Your task to perform on an android device: open app "Cash App" (install if not already installed) Image 0: 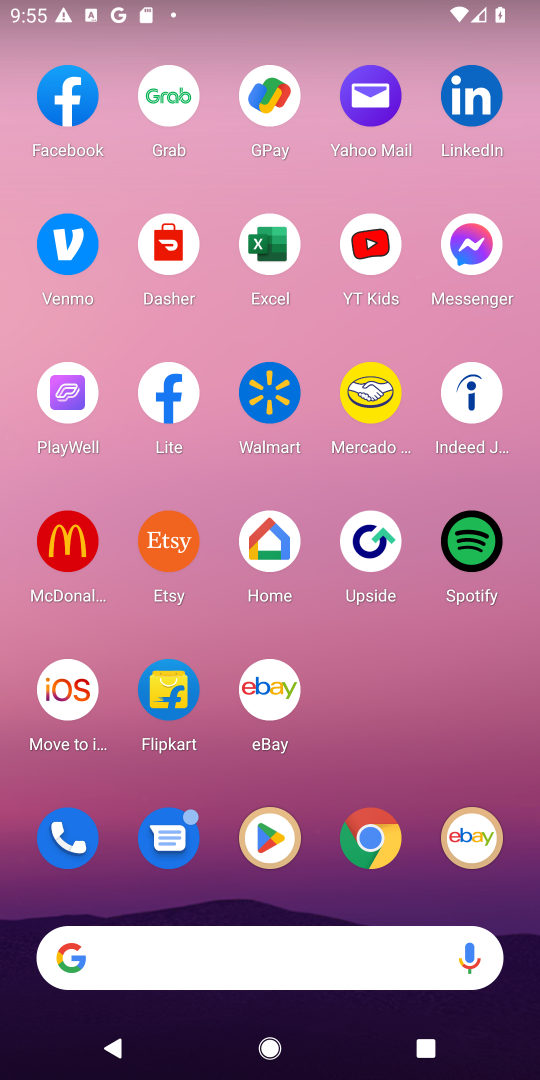
Step 0: press back button
Your task to perform on an android device: open app "Cash App" (install if not already installed) Image 1: 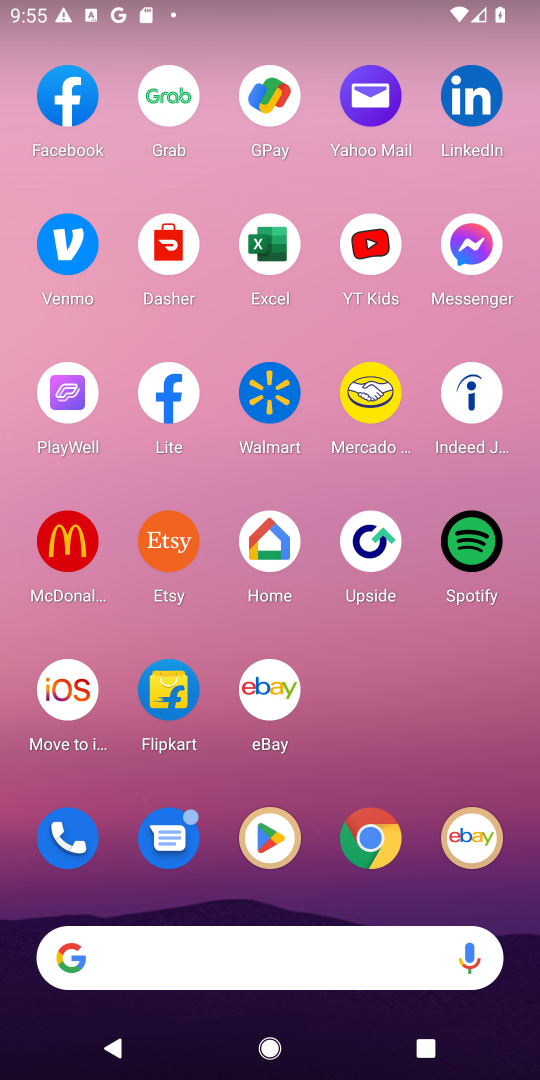
Step 1: click (266, 811)
Your task to perform on an android device: open app "Cash App" (install if not already installed) Image 2: 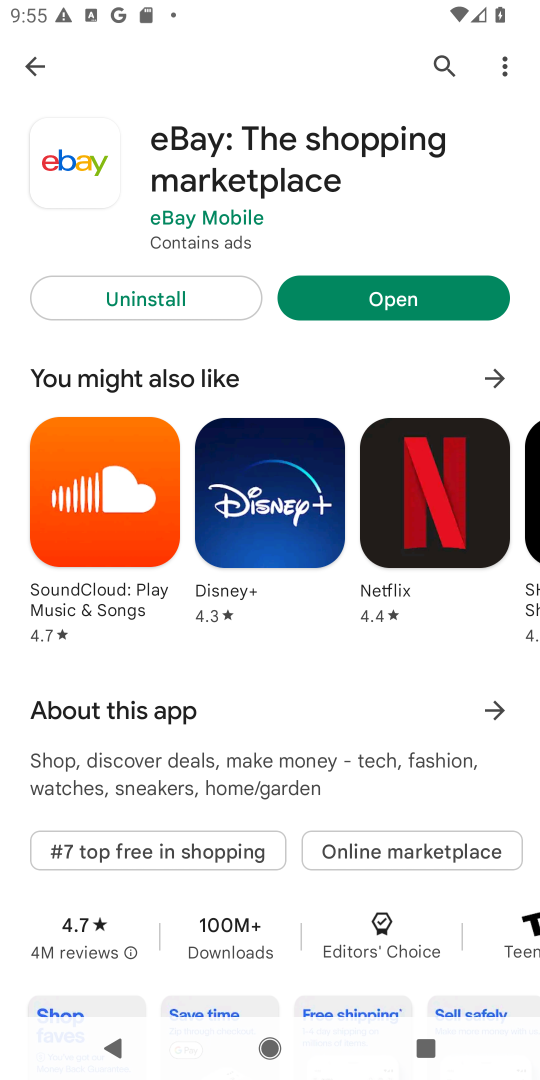
Step 2: click (447, 61)
Your task to perform on an android device: open app "Cash App" (install if not already installed) Image 3: 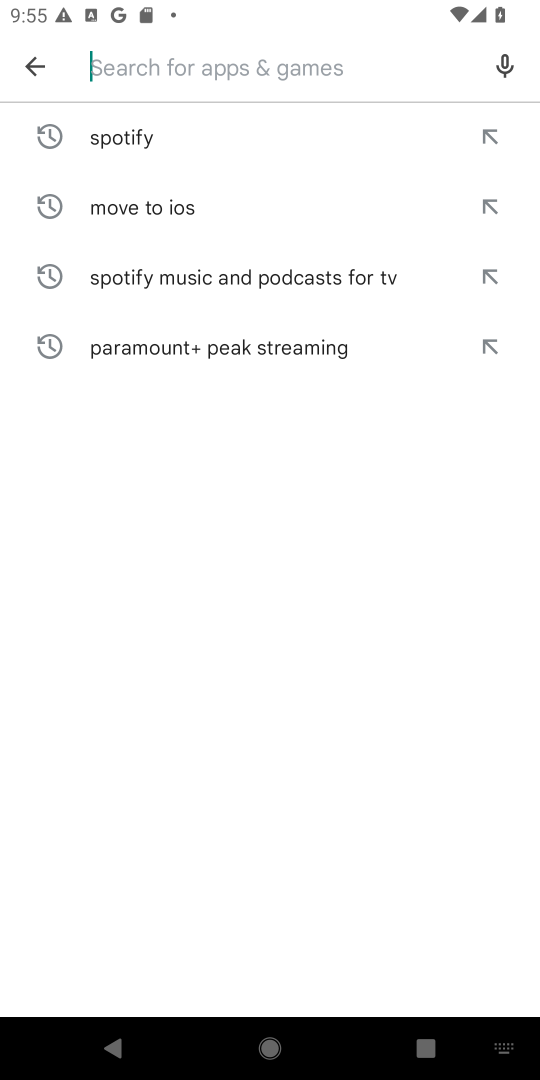
Step 3: type "Cash App"
Your task to perform on an android device: open app "Cash App" (install if not already installed) Image 4: 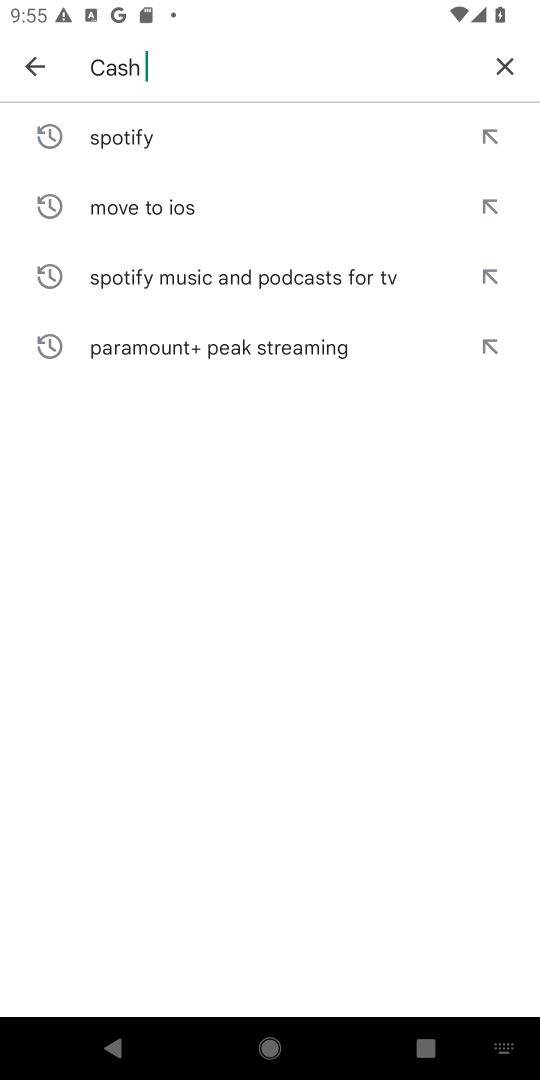
Step 4: type ""
Your task to perform on an android device: open app "Cash App" (install if not already installed) Image 5: 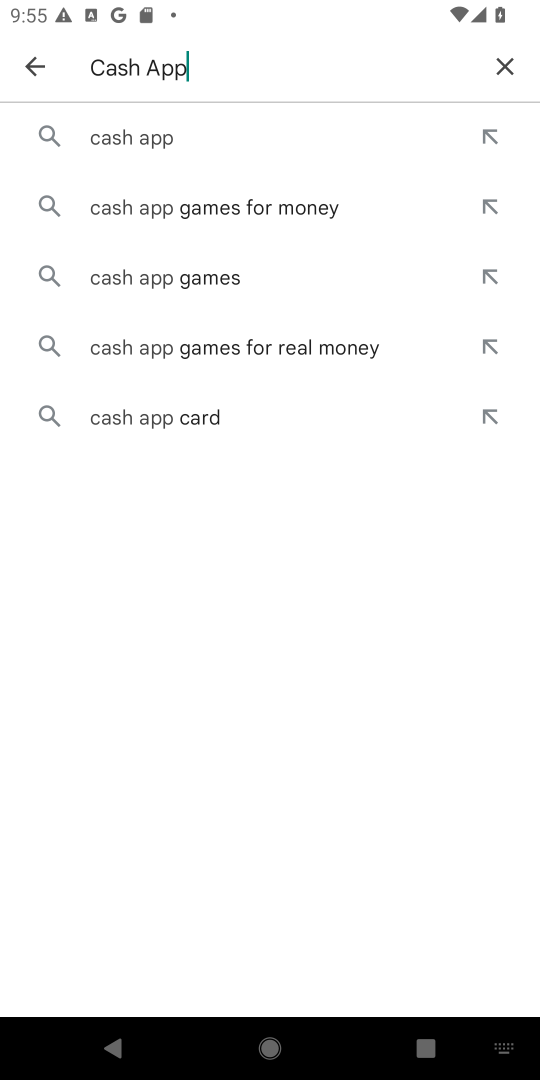
Step 5: click (160, 141)
Your task to perform on an android device: open app "Cash App" (install if not already installed) Image 6: 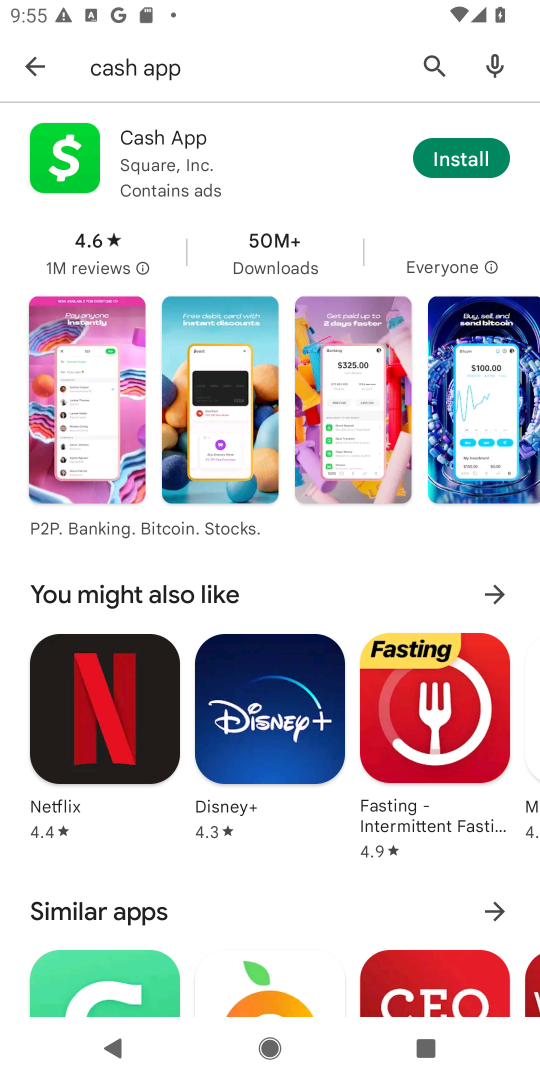
Step 6: click (497, 161)
Your task to perform on an android device: open app "Cash App" (install if not already installed) Image 7: 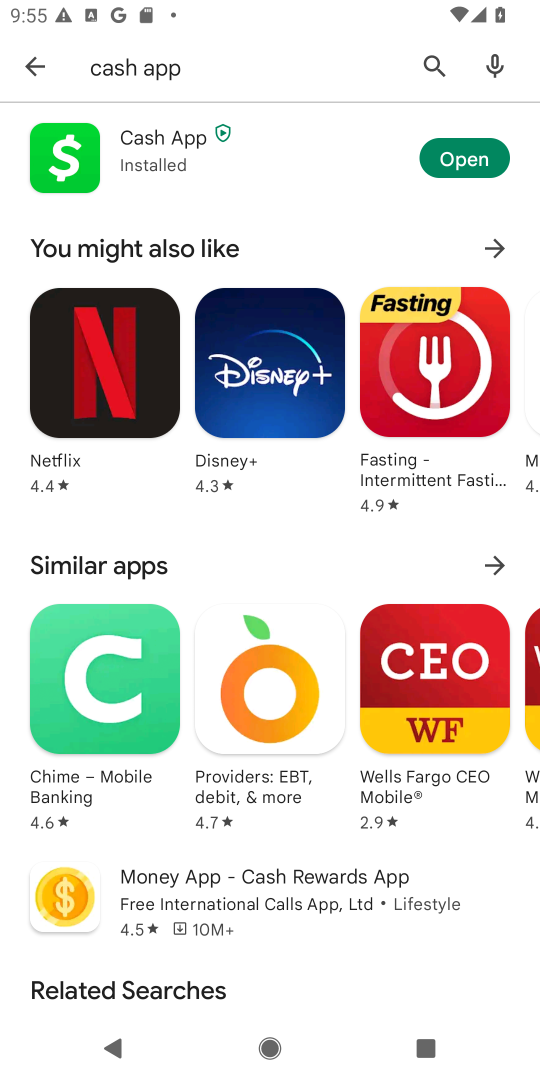
Step 7: click (449, 148)
Your task to perform on an android device: open app "Cash App" (install if not already installed) Image 8: 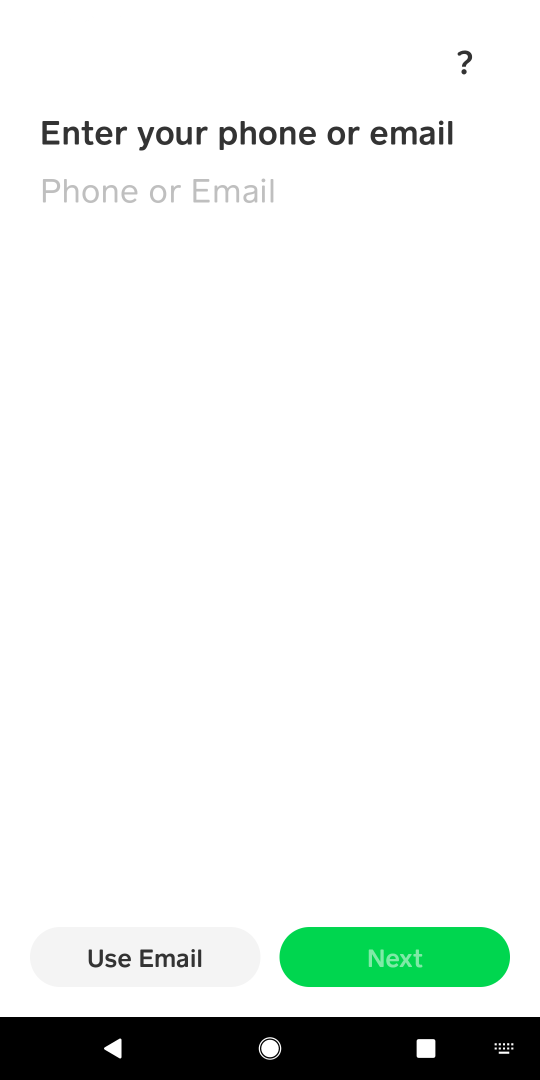
Step 8: task complete